Your task to perform on an android device: Go to Google maps Image 0: 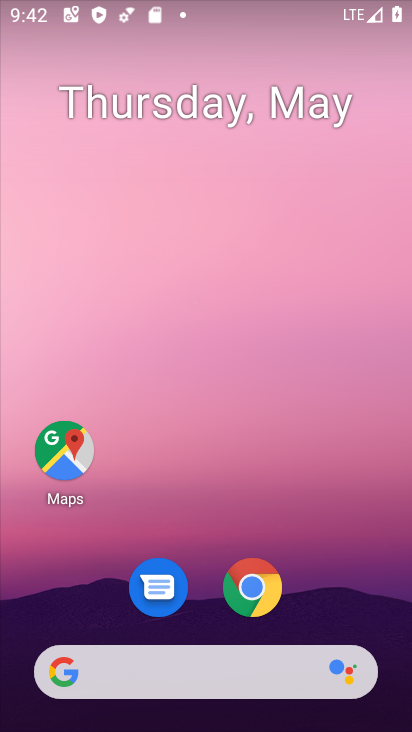
Step 0: click (69, 455)
Your task to perform on an android device: Go to Google maps Image 1: 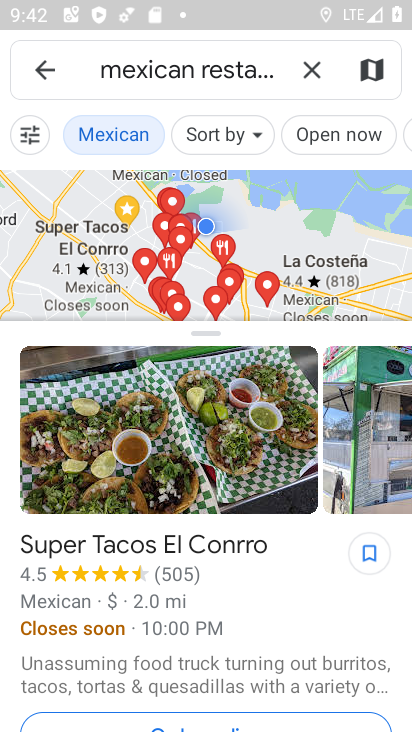
Step 1: click (299, 71)
Your task to perform on an android device: Go to Google maps Image 2: 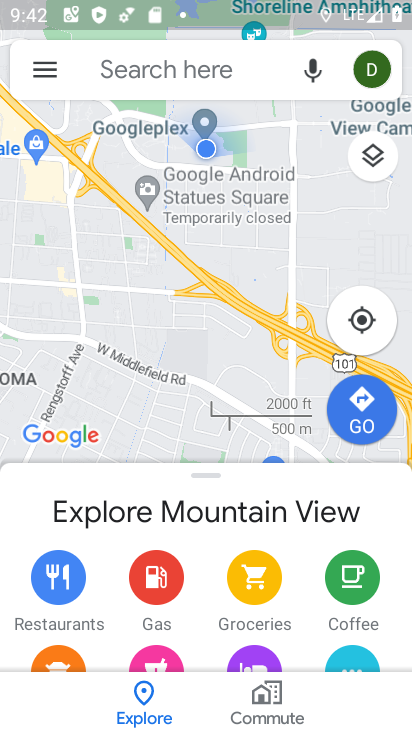
Step 2: task complete